Your task to perform on an android device: Open Chrome and go to settings Image 0: 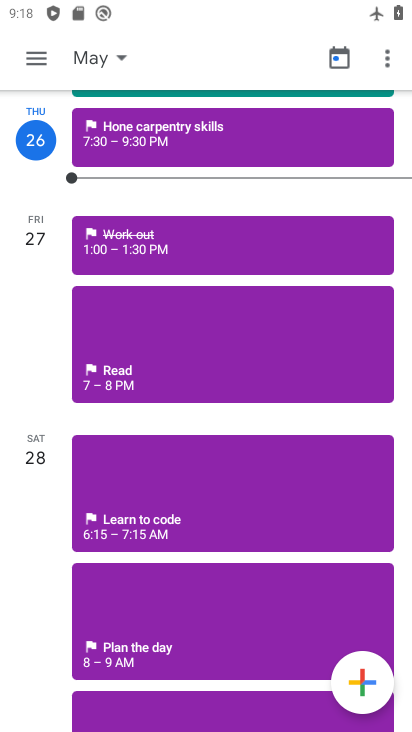
Step 0: press home button
Your task to perform on an android device: Open Chrome and go to settings Image 1: 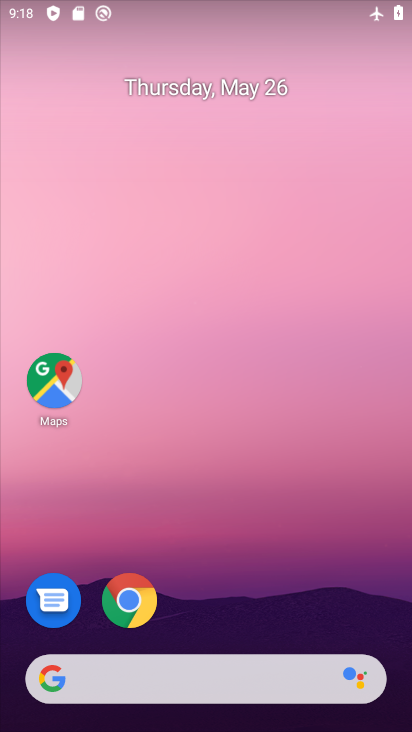
Step 1: click (130, 601)
Your task to perform on an android device: Open Chrome and go to settings Image 2: 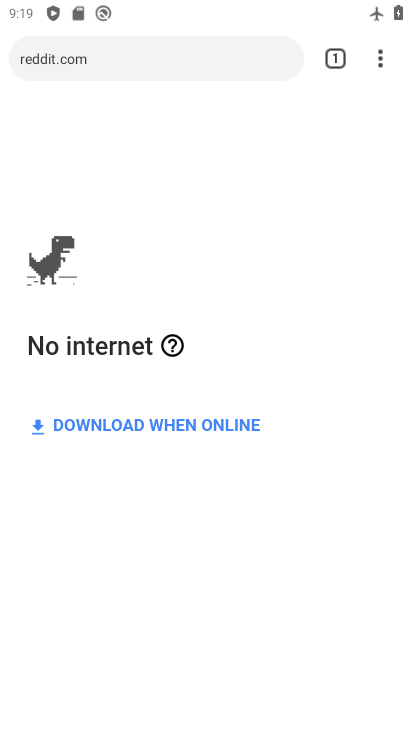
Step 2: task complete